Your task to perform on an android device: Check the news Image 0: 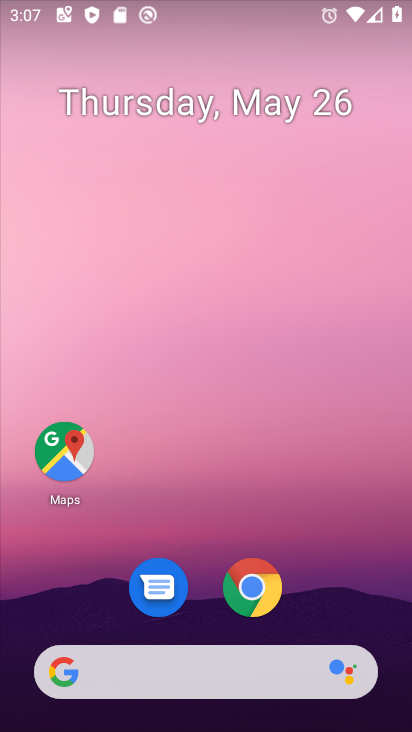
Step 0: drag from (0, 256) to (408, 425)
Your task to perform on an android device: Check the news Image 1: 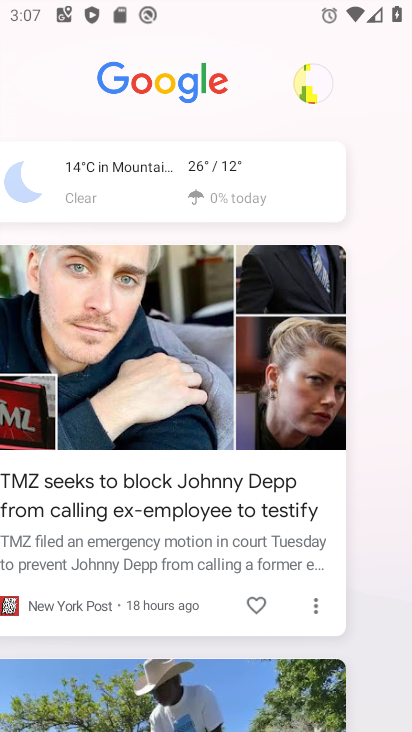
Step 1: task complete